Your task to perform on an android device: Do I have any events this weekend? Image 0: 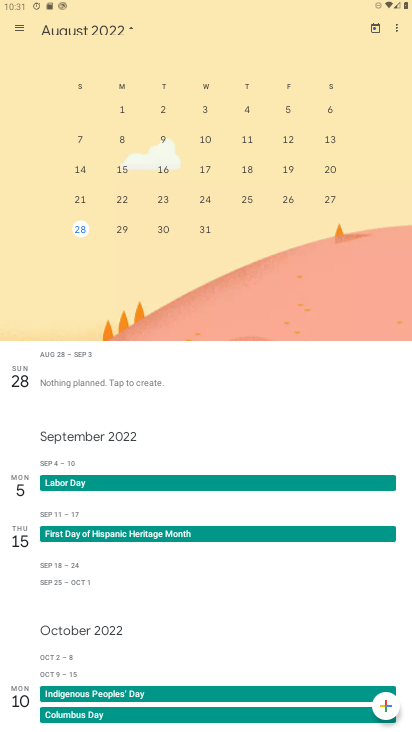
Step 0: press home button
Your task to perform on an android device: Do I have any events this weekend? Image 1: 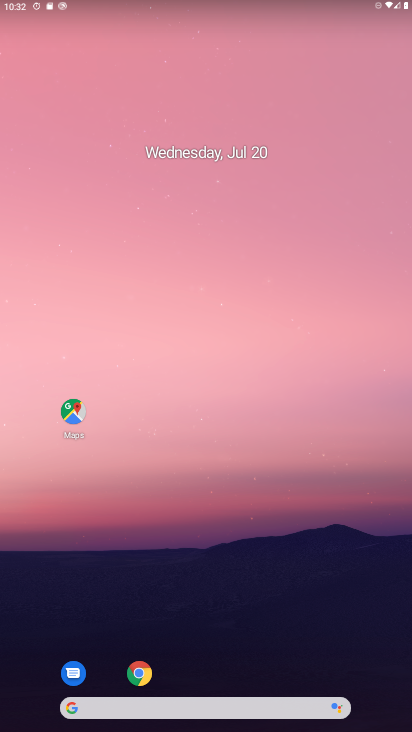
Step 1: drag from (391, 675) to (164, 75)
Your task to perform on an android device: Do I have any events this weekend? Image 2: 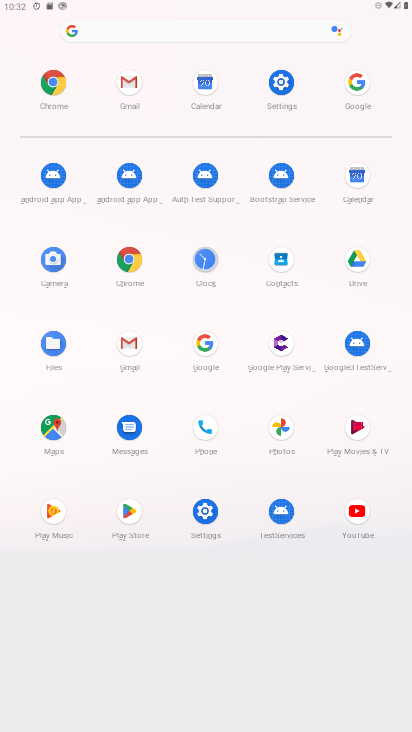
Step 2: click (353, 175)
Your task to perform on an android device: Do I have any events this weekend? Image 3: 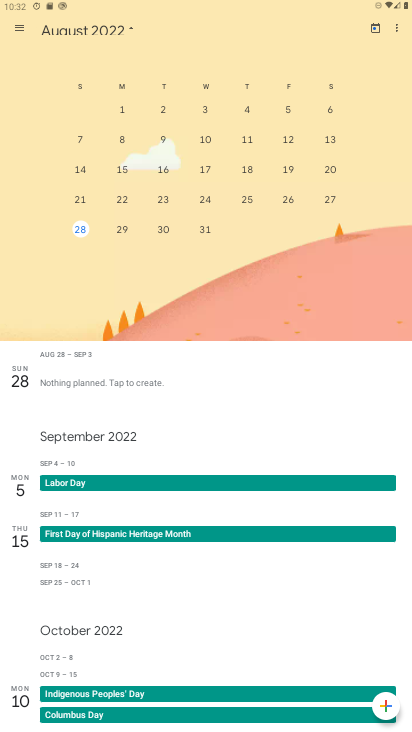
Step 3: task complete